Your task to perform on an android device: Show me recent news Image 0: 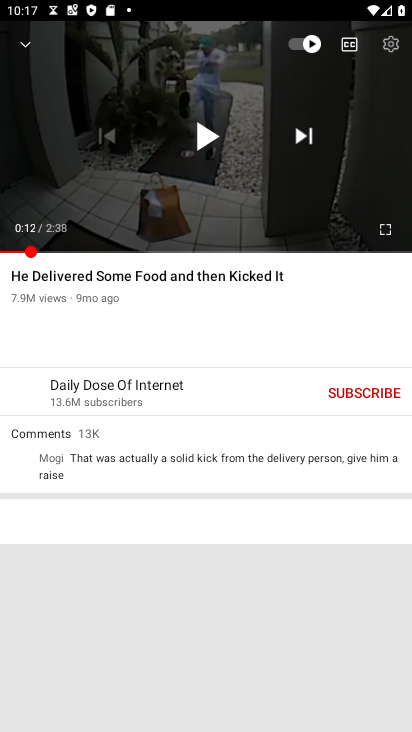
Step 0: press home button
Your task to perform on an android device: Show me recent news Image 1: 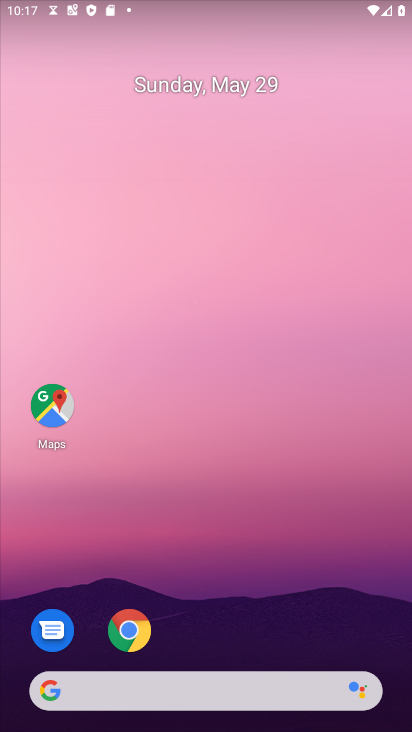
Step 1: click (132, 628)
Your task to perform on an android device: Show me recent news Image 2: 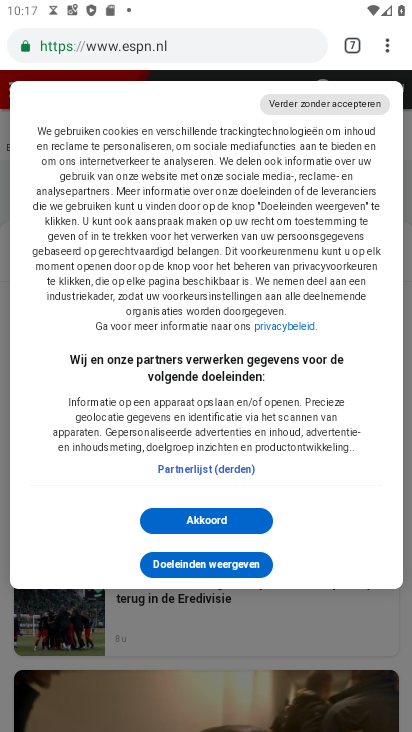
Step 2: click (352, 47)
Your task to perform on an android device: Show me recent news Image 3: 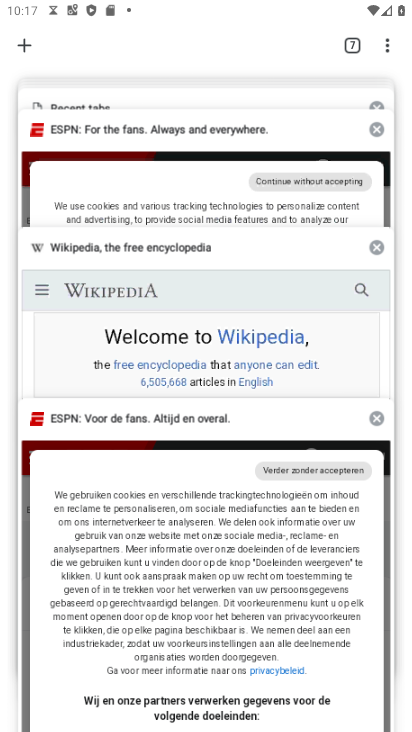
Step 3: click (25, 39)
Your task to perform on an android device: Show me recent news Image 4: 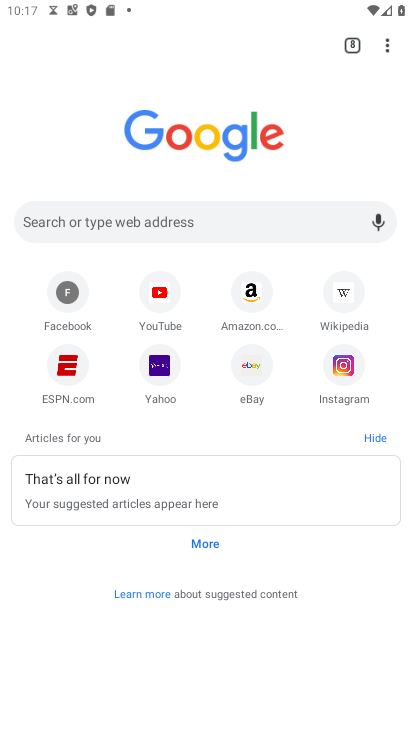
Step 4: click (204, 233)
Your task to perform on an android device: Show me recent news Image 5: 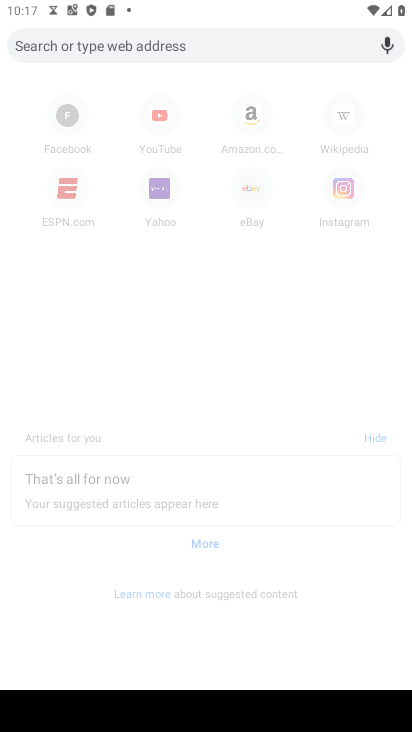
Step 5: type "recent news"
Your task to perform on an android device: Show me recent news Image 6: 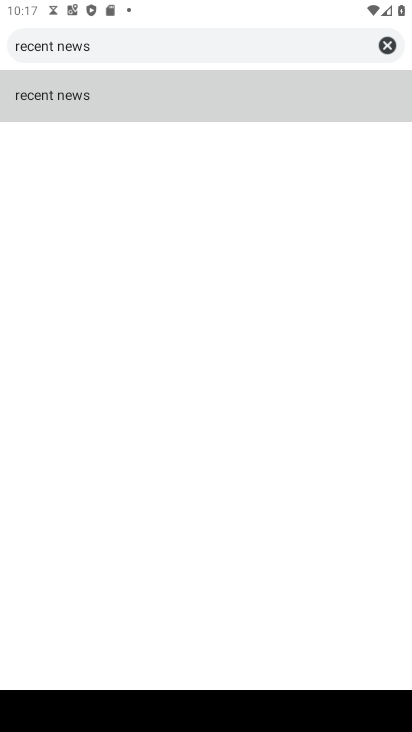
Step 6: click (128, 97)
Your task to perform on an android device: Show me recent news Image 7: 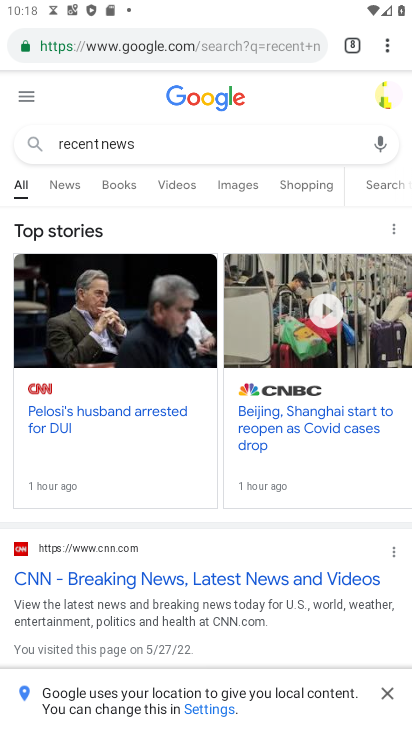
Step 7: click (66, 187)
Your task to perform on an android device: Show me recent news Image 8: 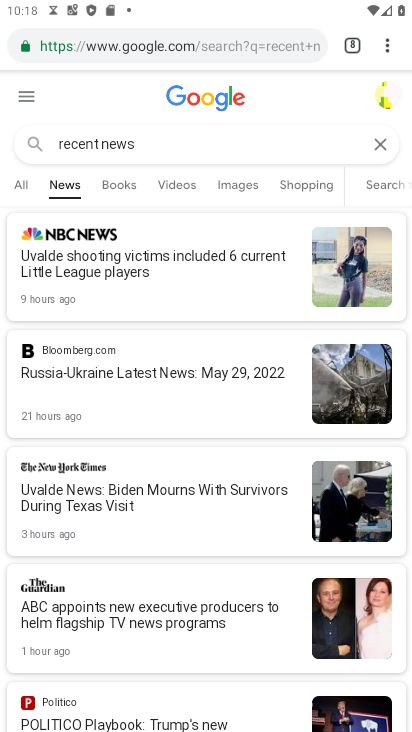
Step 8: task complete